Your task to perform on an android device: What's on my calendar tomorrow? Image 0: 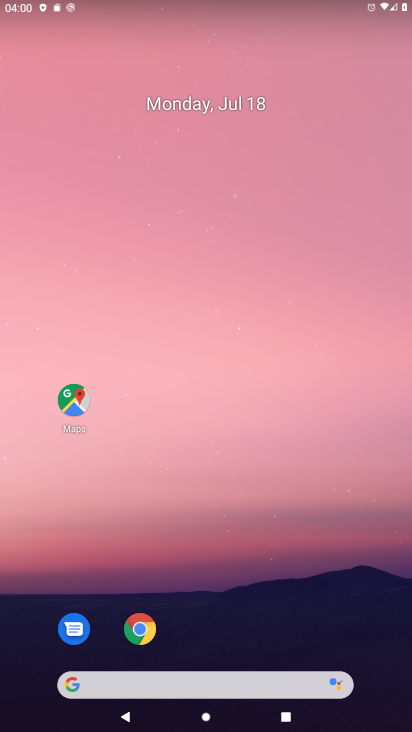
Step 0: drag from (384, 714) to (303, 71)
Your task to perform on an android device: What's on my calendar tomorrow? Image 1: 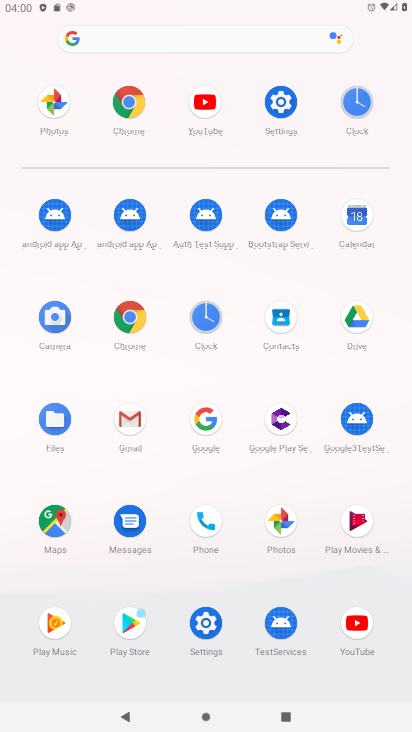
Step 1: click (351, 226)
Your task to perform on an android device: What's on my calendar tomorrow? Image 2: 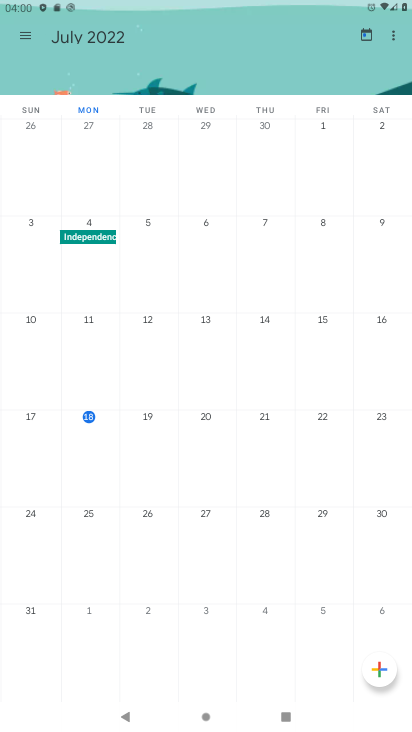
Step 2: click (145, 410)
Your task to perform on an android device: What's on my calendar tomorrow? Image 3: 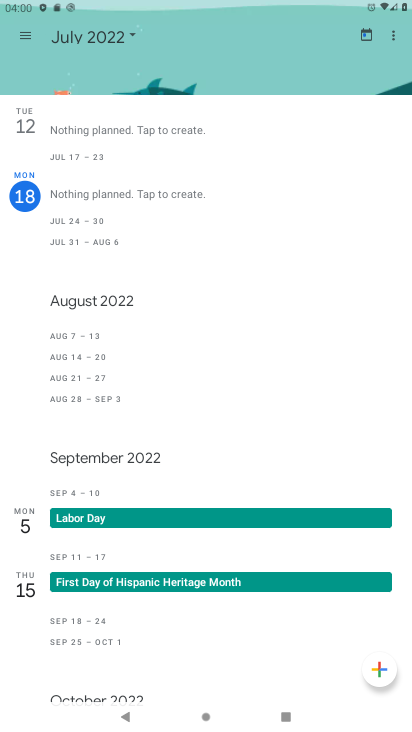
Step 3: click (135, 36)
Your task to perform on an android device: What's on my calendar tomorrow? Image 4: 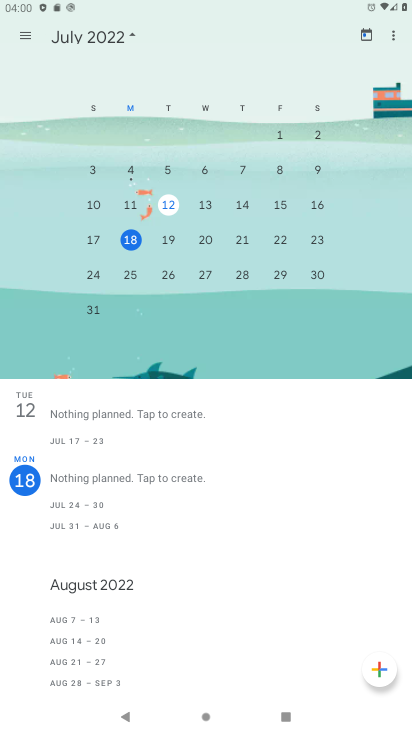
Step 4: click (169, 238)
Your task to perform on an android device: What's on my calendar tomorrow? Image 5: 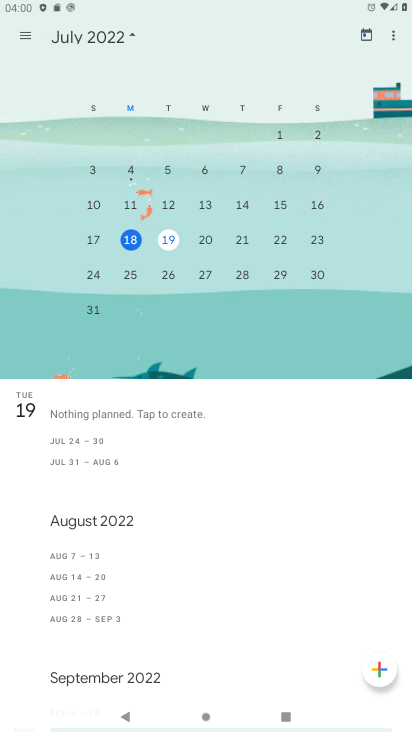
Step 5: task complete